Your task to perform on an android device: turn off sleep mode Image 0: 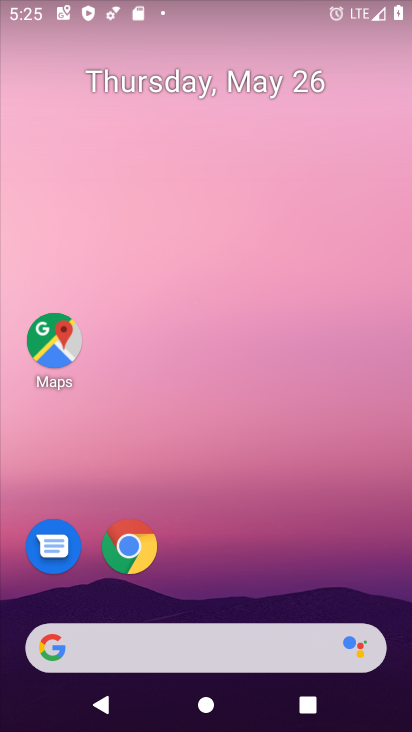
Step 0: drag from (120, 604) to (262, 66)
Your task to perform on an android device: turn off sleep mode Image 1: 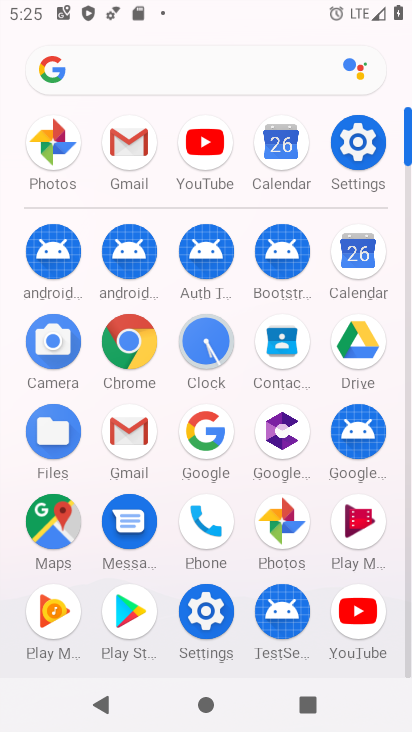
Step 1: click (330, 173)
Your task to perform on an android device: turn off sleep mode Image 2: 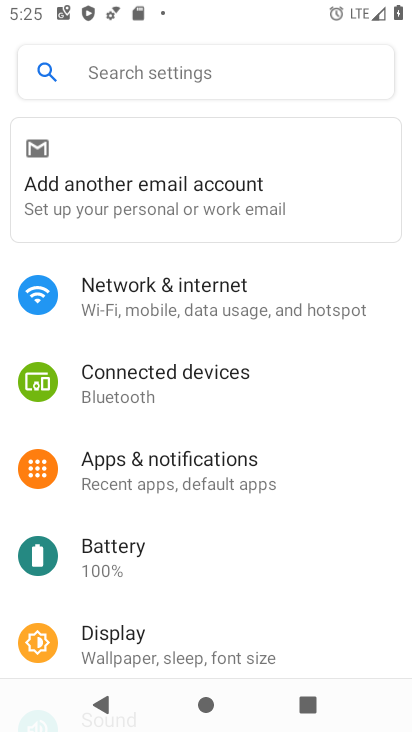
Step 2: click (103, 66)
Your task to perform on an android device: turn off sleep mode Image 3: 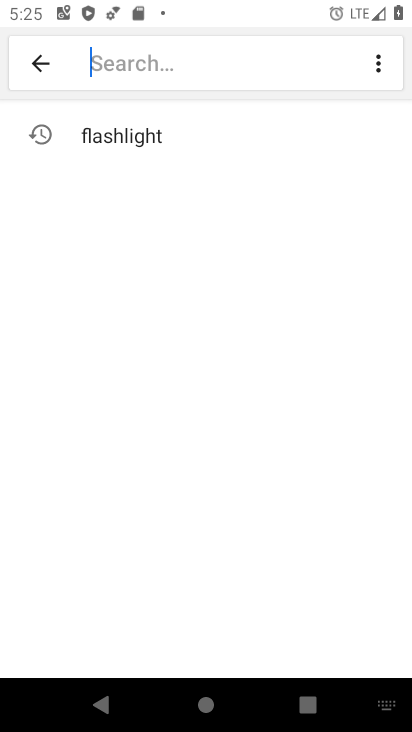
Step 3: type "sleep mode"
Your task to perform on an android device: turn off sleep mode Image 4: 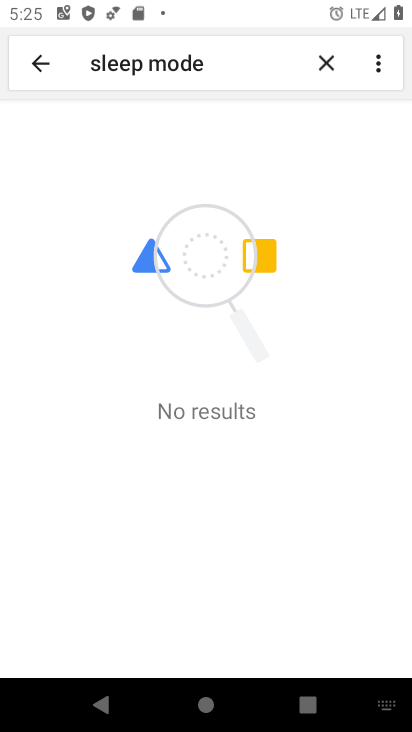
Step 4: task complete